Your task to perform on an android device: Set an alarmfor 5pm Image 0: 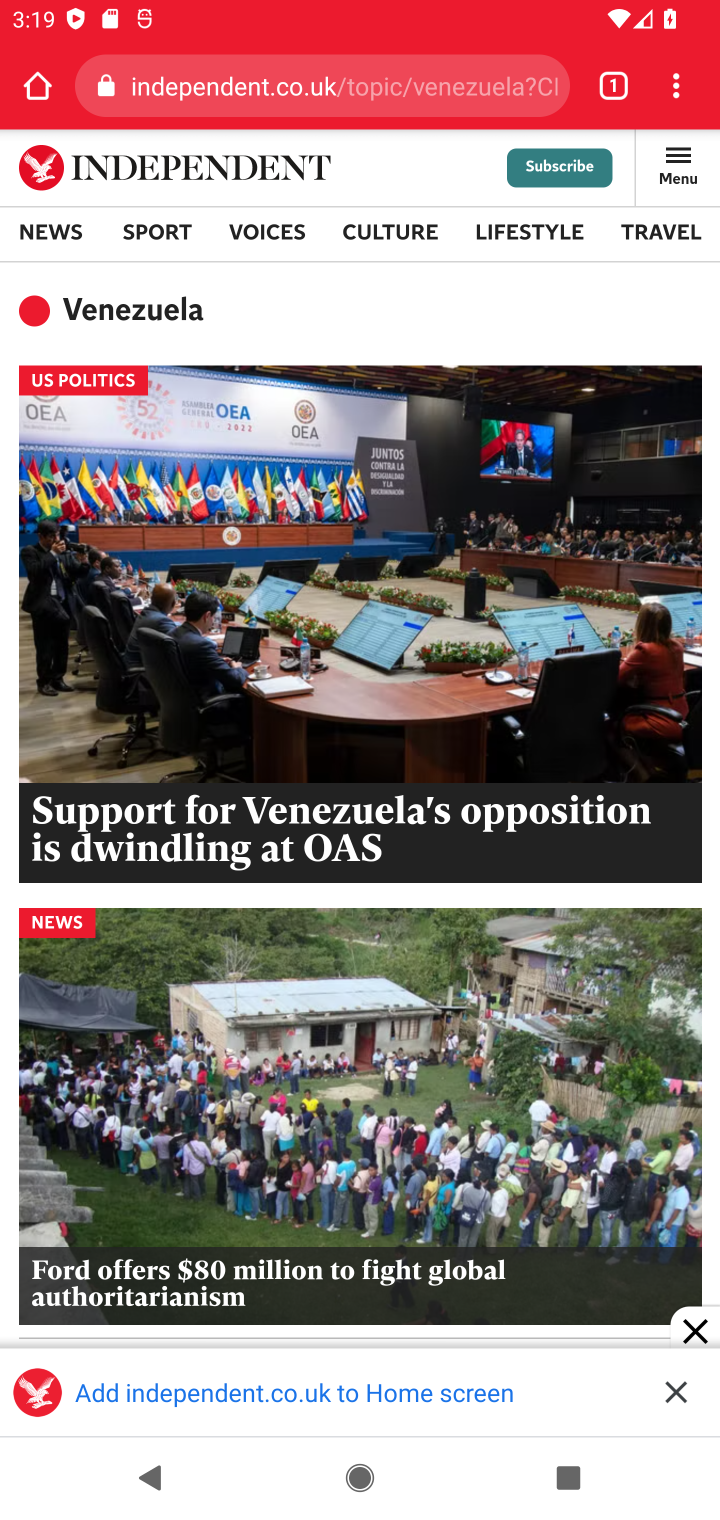
Step 0: press home button
Your task to perform on an android device: Set an alarmfor 5pm Image 1: 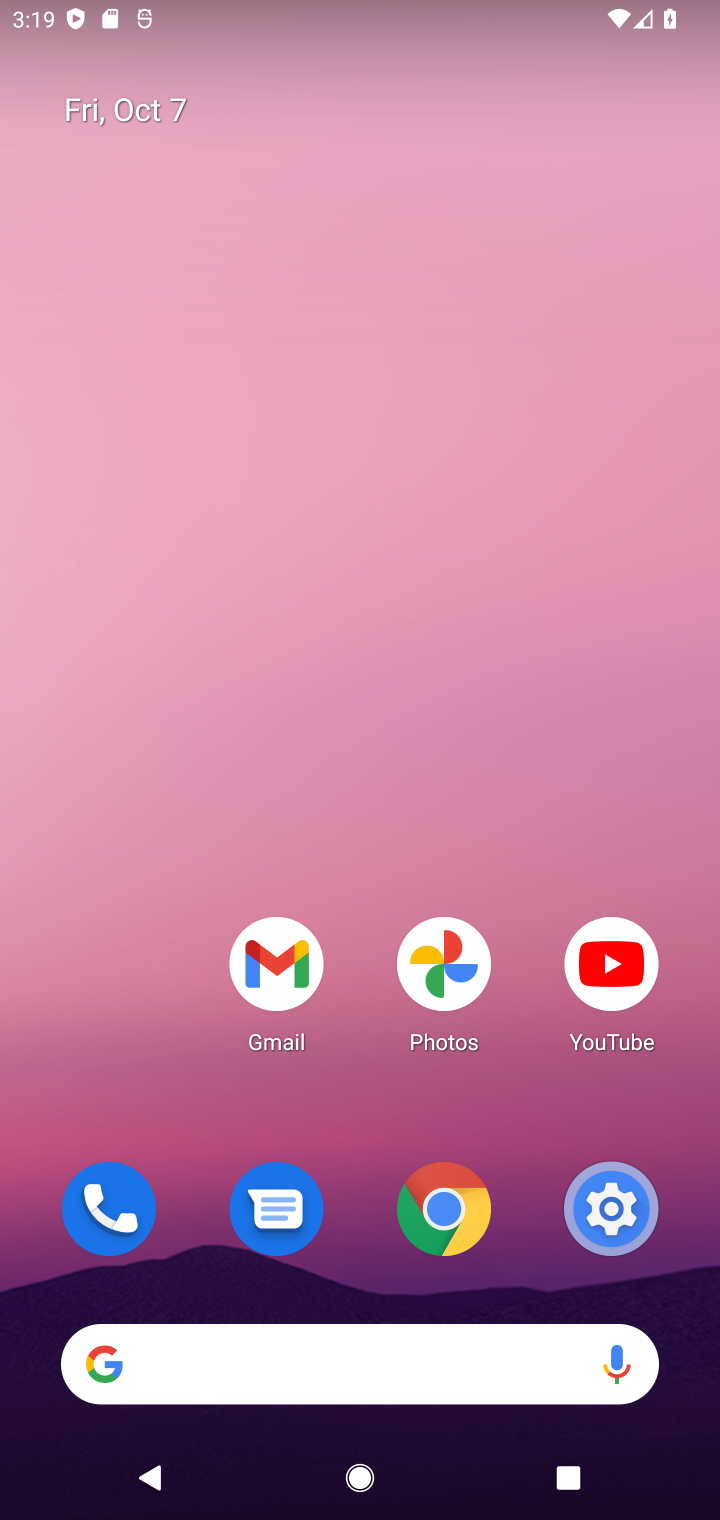
Step 1: drag from (158, 1118) to (139, 134)
Your task to perform on an android device: Set an alarmfor 5pm Image 2: 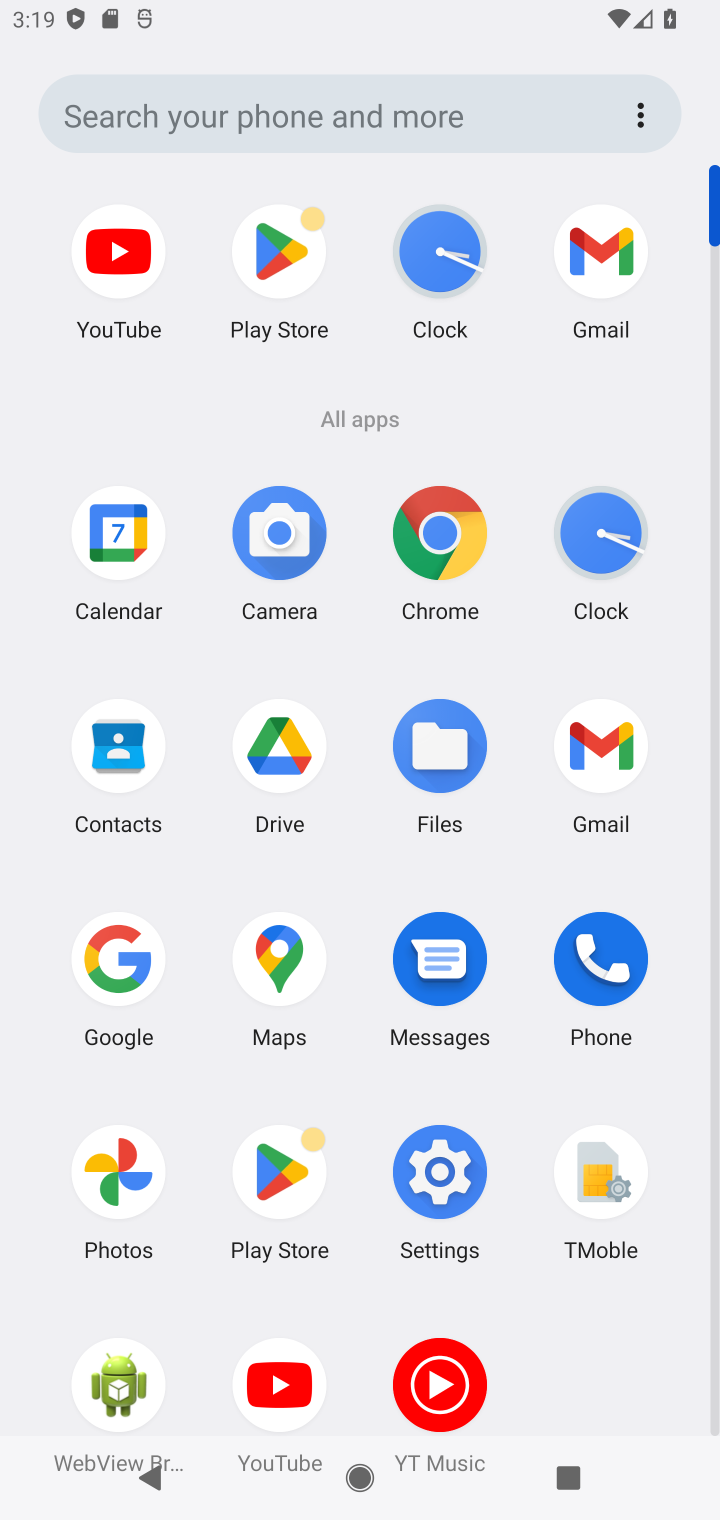
Step 2: click (604, 542)
Your task to perform on an android device: Set an alarmfor 5pm Image 3: 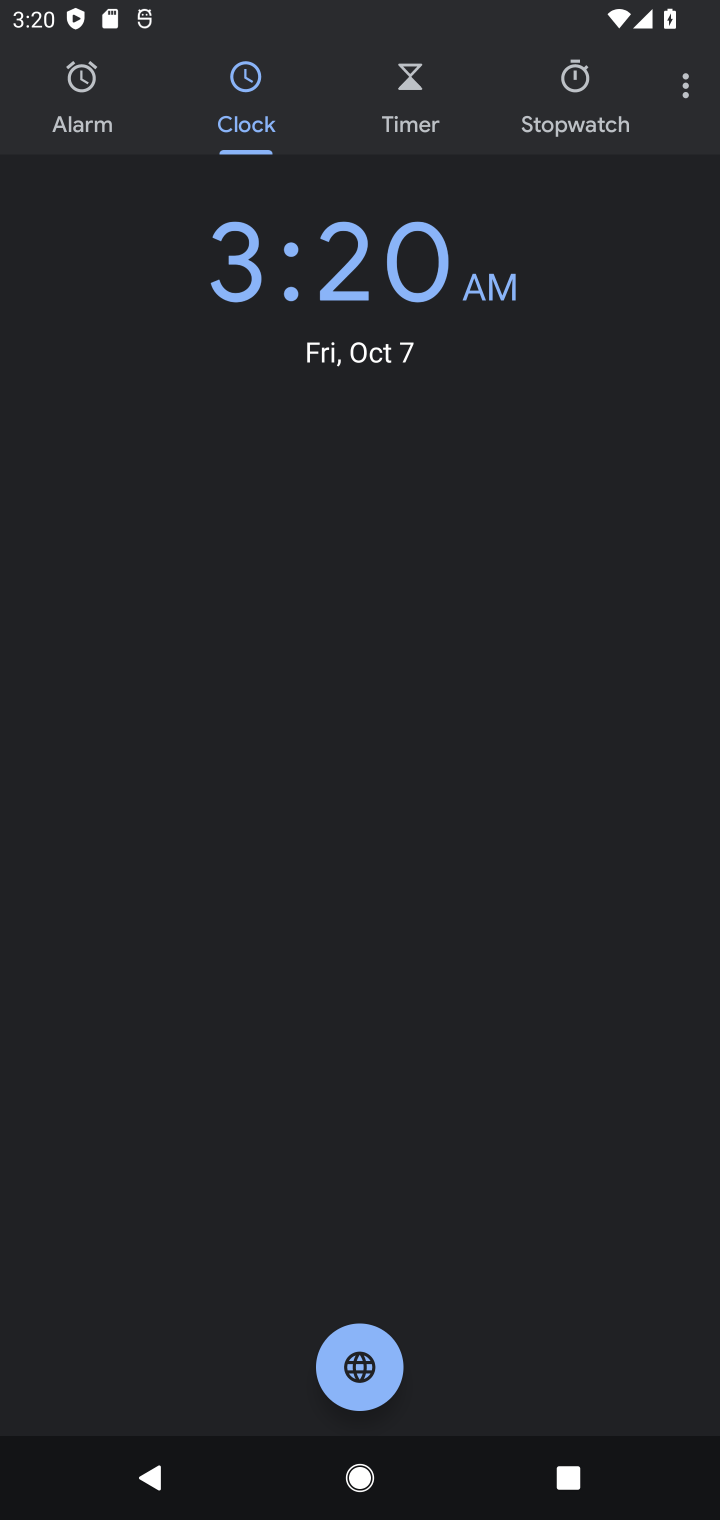
Step 3: click (68, 112)
Your task to perform on an android device: Set an alarmfor 5pm Image 4: 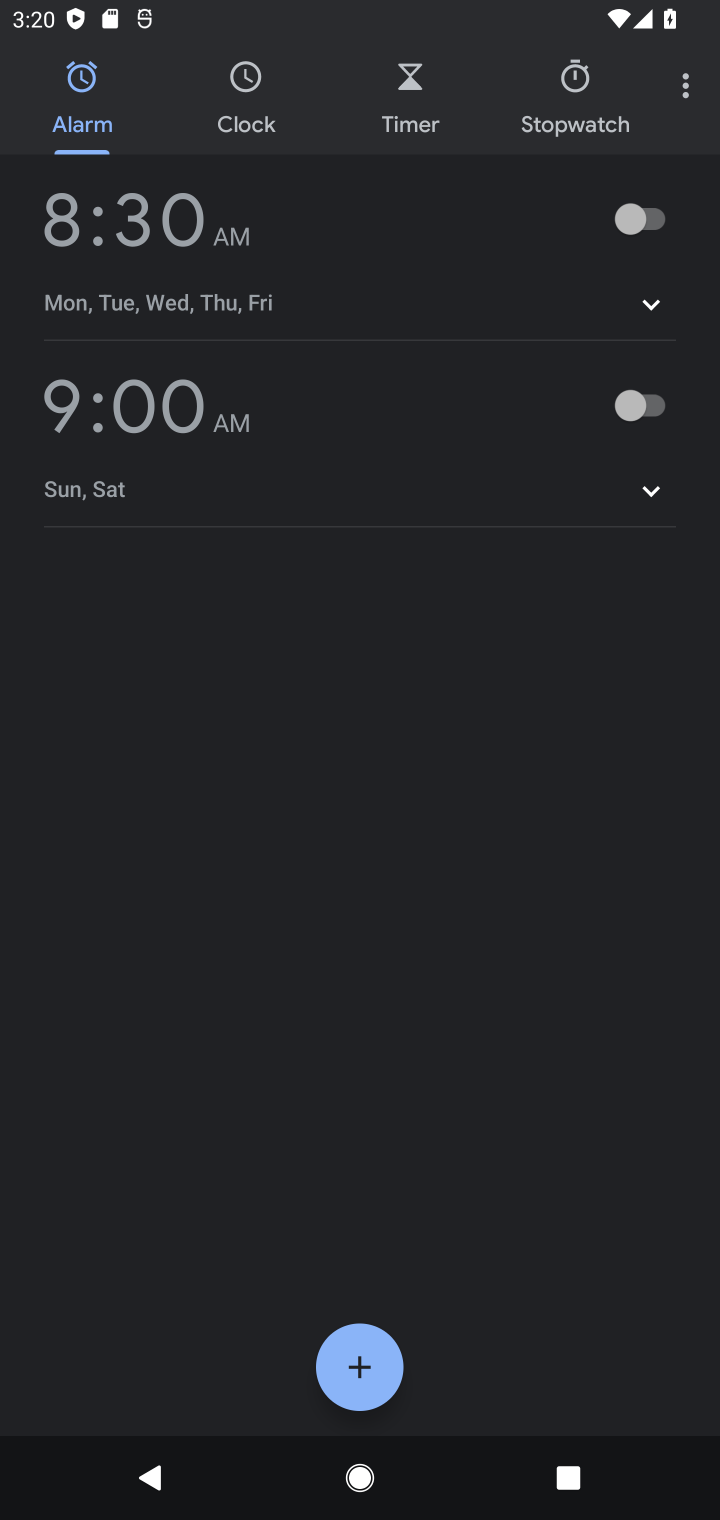
Step 4: click (365, 1371)
Your task to perform on an android device: Set an alarmfor 5pm Image 5: 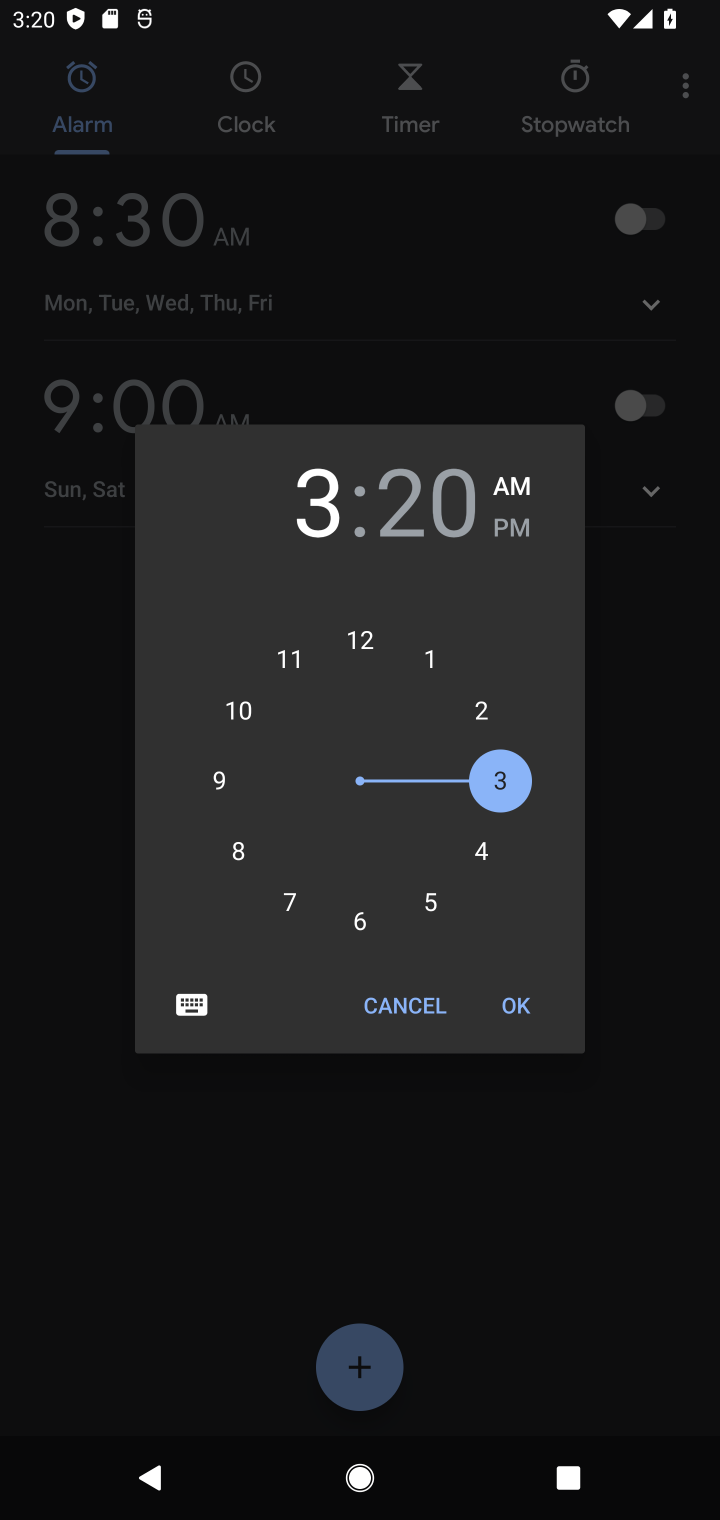
Step 5: click (431, 899)
Your task to perform on an android device: Set an alarmfor 5pm Image 6: 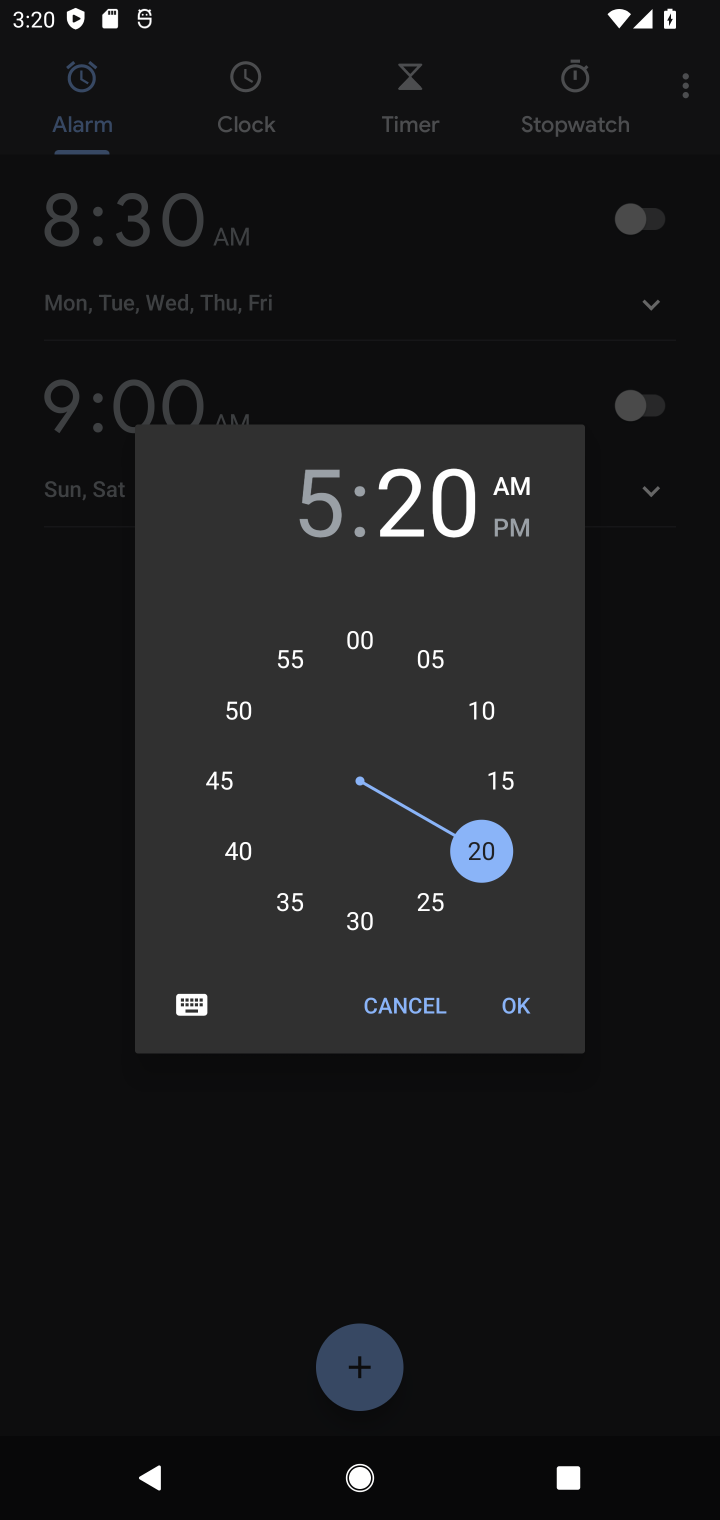
Step 6: click (522, 525)
Your task to perform on an android device: Set an alarmfor 5pm Image 7: 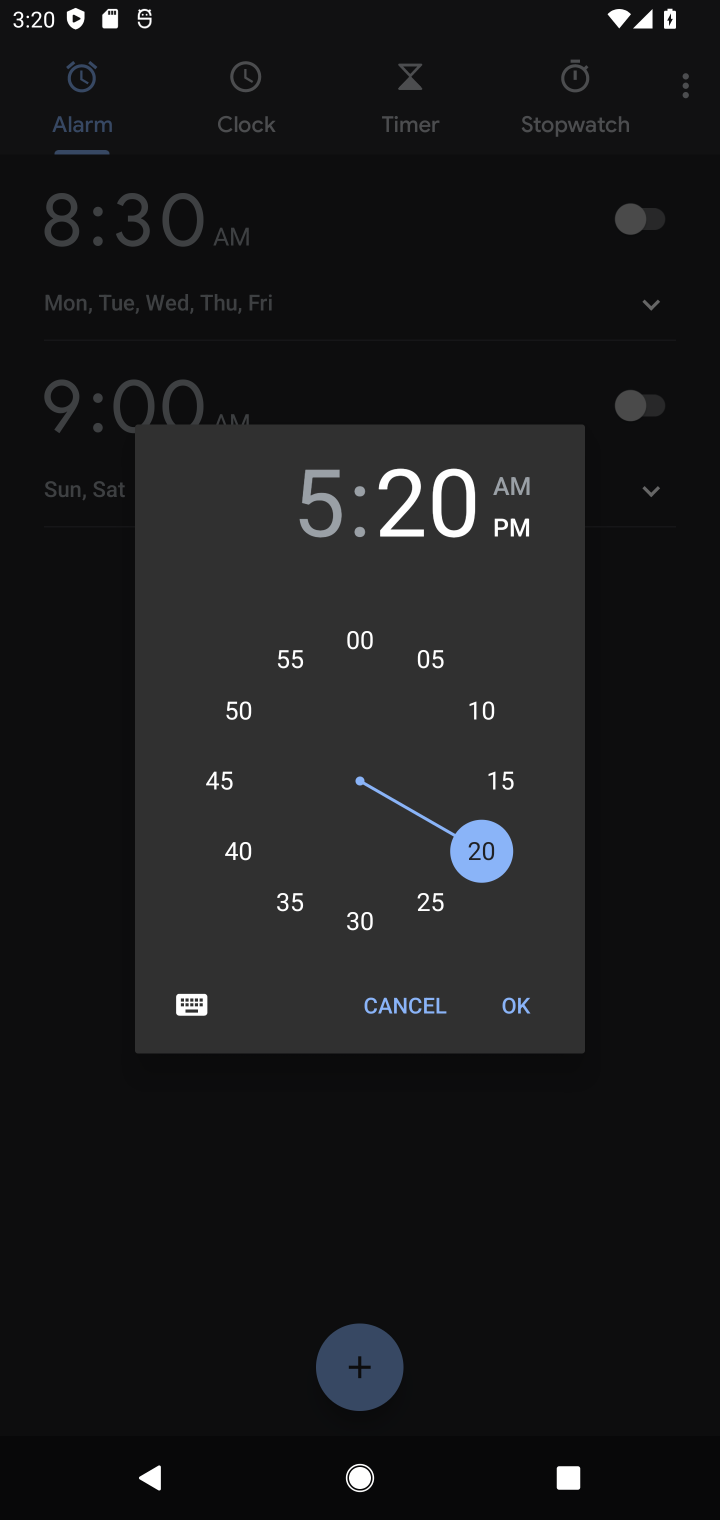
Step 7: click (363, 641)
Your task to perform on an android device: Set an alarmfor 5pm Image 8: 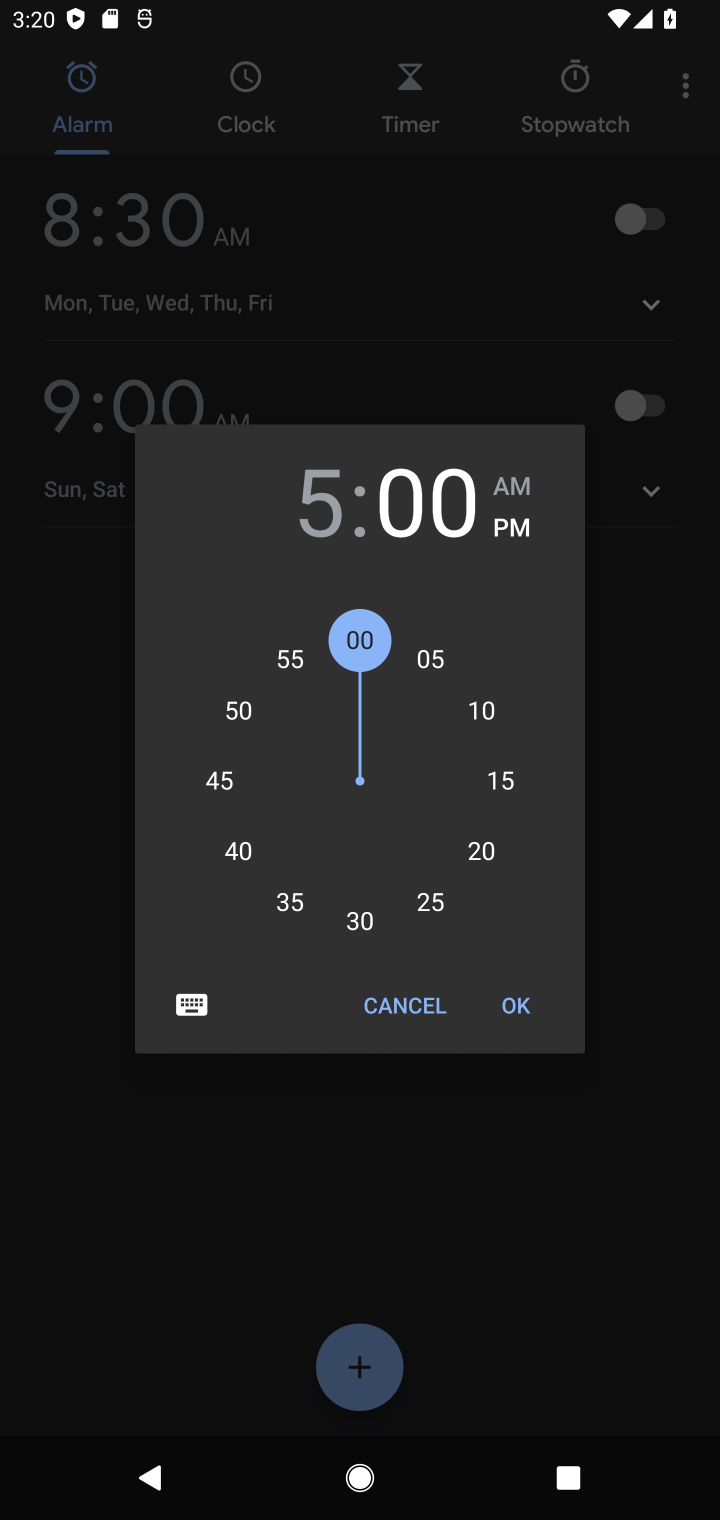
Step 8: click (531, 1013)
Your task to perform on an android device: Set an alarmfor 5pm Image 9: 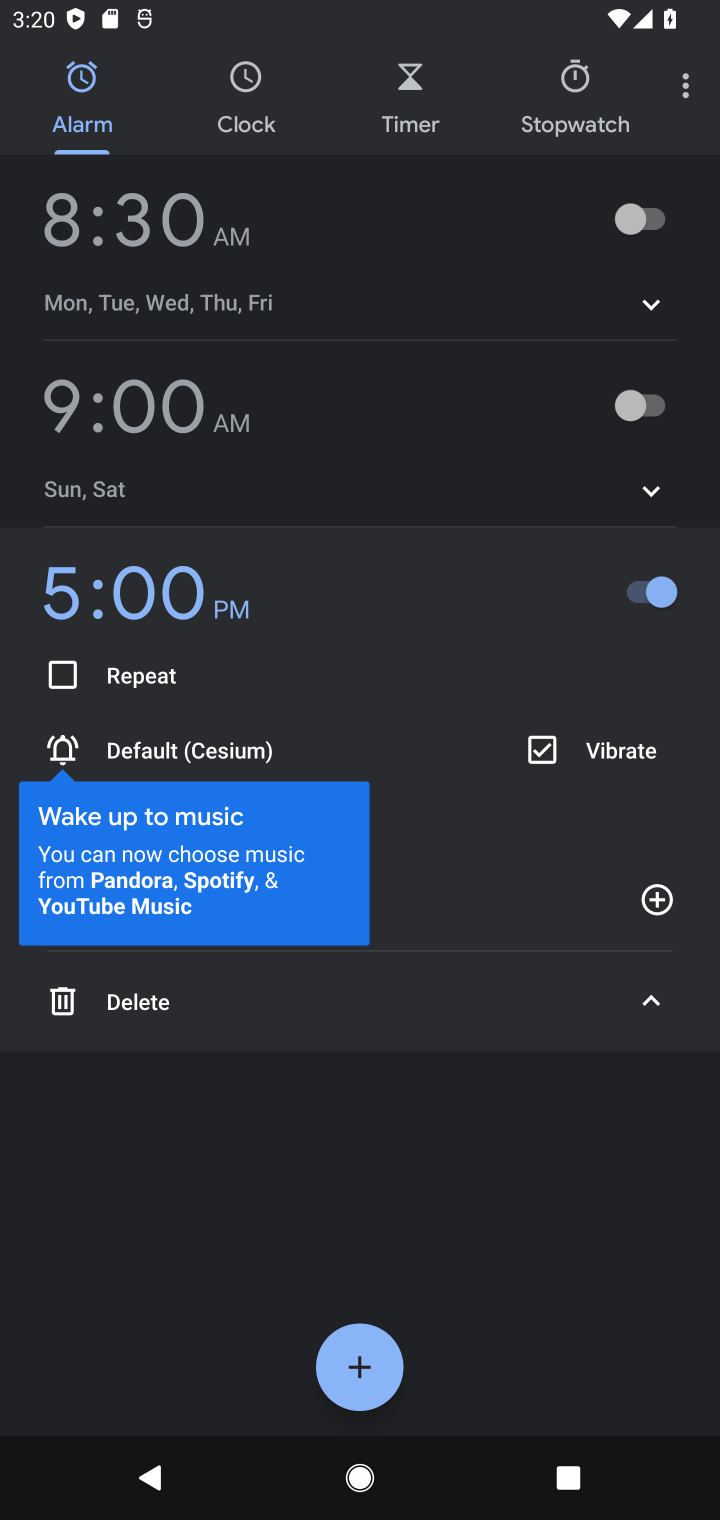
Step 9: task complete